Your task to perform on an android device: Go to Amazon Image 0: 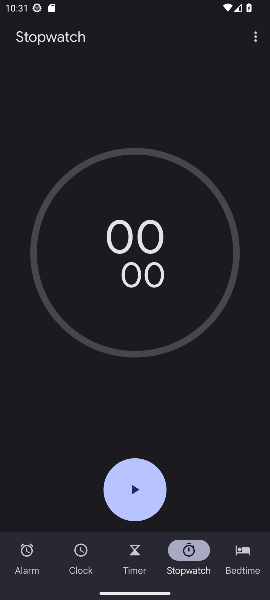
Step 0: press home button
Your task to perform on an android device: Go to Amazon Image 1: 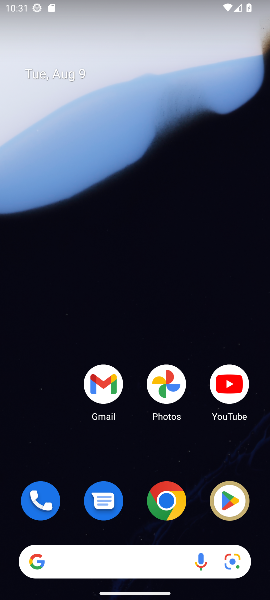
Step 1: click (175, 507)
Your task to perform on an android device: Go to Amazon Image 2: 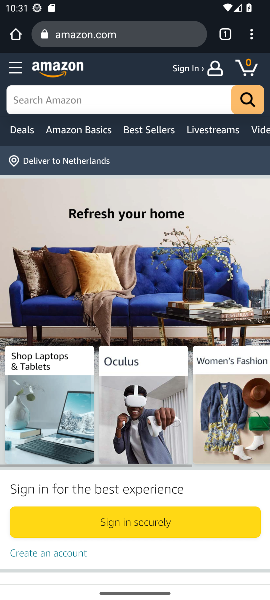
Step 2: task complete